Your task to perform on an android device: Open Google Maps and go to "Timeline" Image 0: 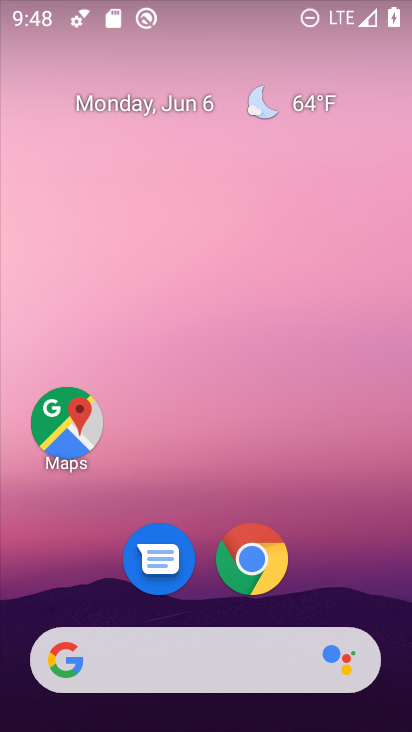
Step 0: drag from (209, 723) to (209, 21)
Your task to perform on an android device: Open Google Maps and go to "Timeline" Image 1: 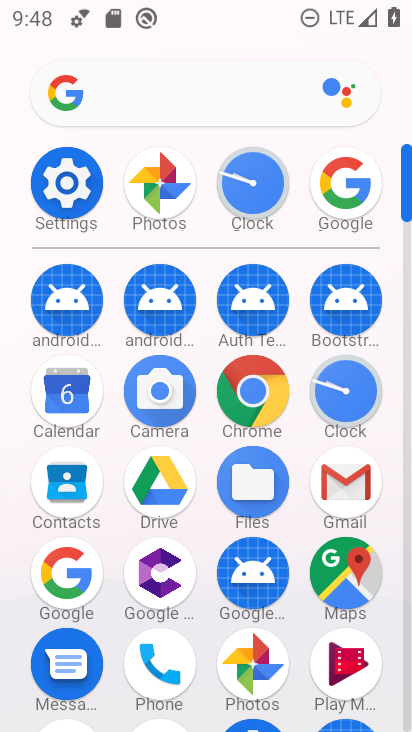
Step 1: click (341, 584)
Your task to perform on an android device: Open Google Maps and go to "Timeline" Image 2: 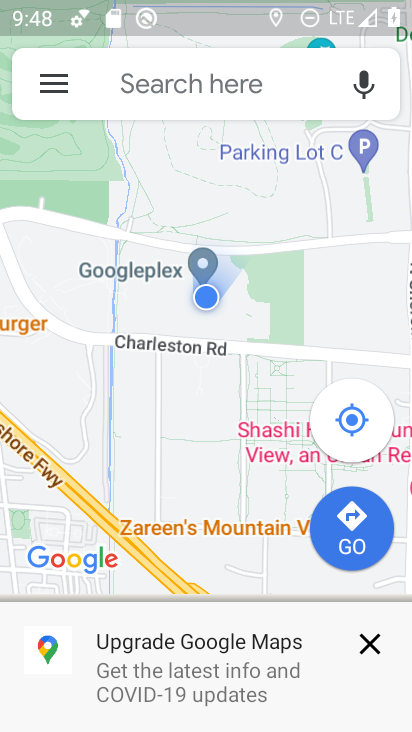
Step 2: click (61, 82)
Your task to perform on an android device: Open Google Maps and go to "Timeline" Image 3: 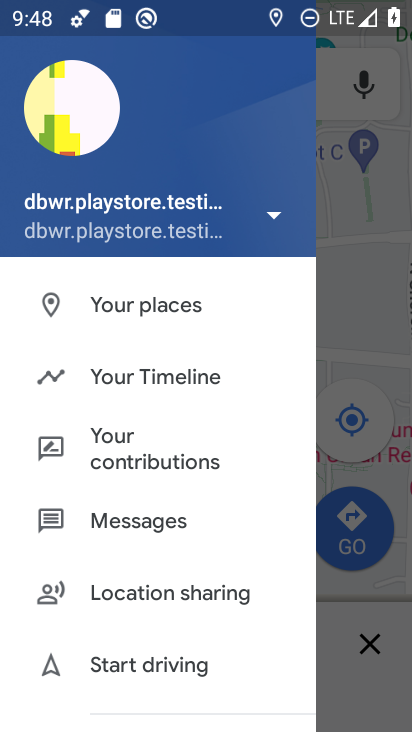
Step 3: click (160, 378)
Your task to perform on an android device: Open Google Maps and go to "Timeline" Image 4: 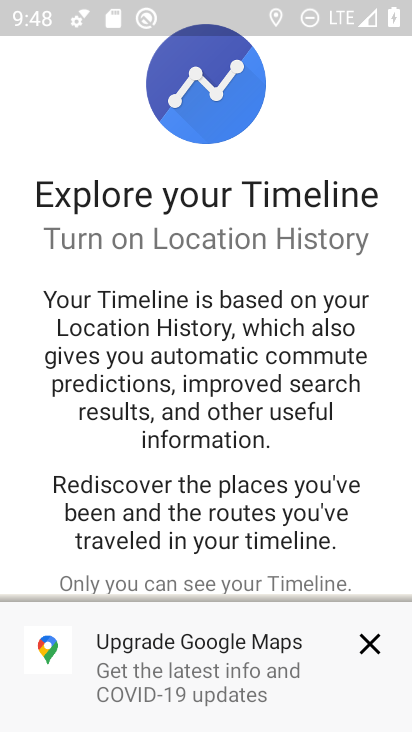
Step 4: click (370, 644)
Your task to perform on an android device: Open Google Maps and go to "Timeline" Image 5: 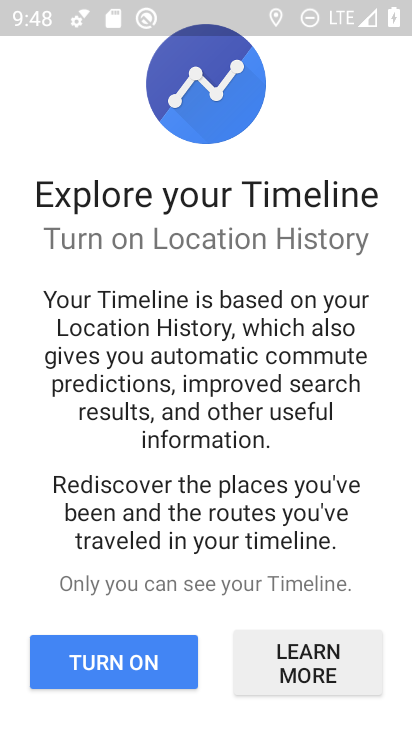
Step 5: click (139, 660)
Your task to perform on an android device: Open Google Maps and go to "Timeline" Image 6: 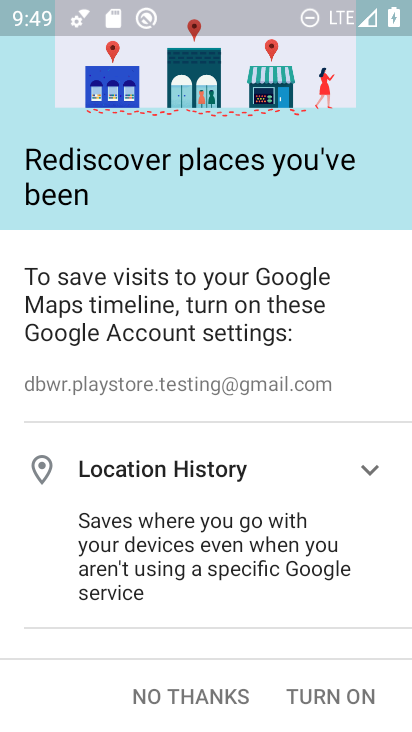
Step 6: click (175, 693)
Your task to perform on an android device: Open Google Maps and go to "Timeline" Image 7: 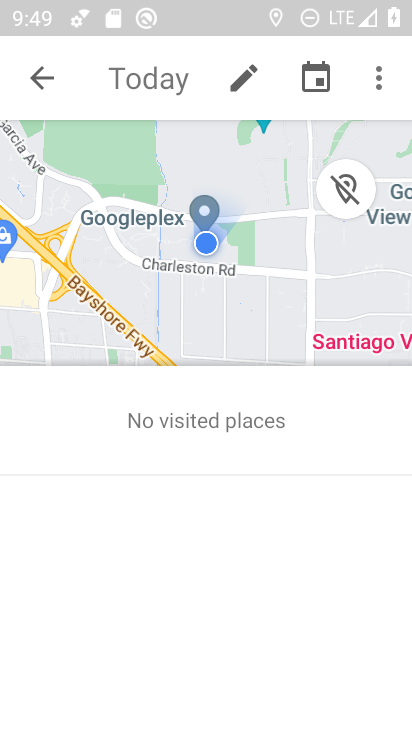
Step 7: task complete